Your task to perform on an android device: open app "WhatsApp Messenger" (install if not already installed), go to login, and select forgot password Image 0: 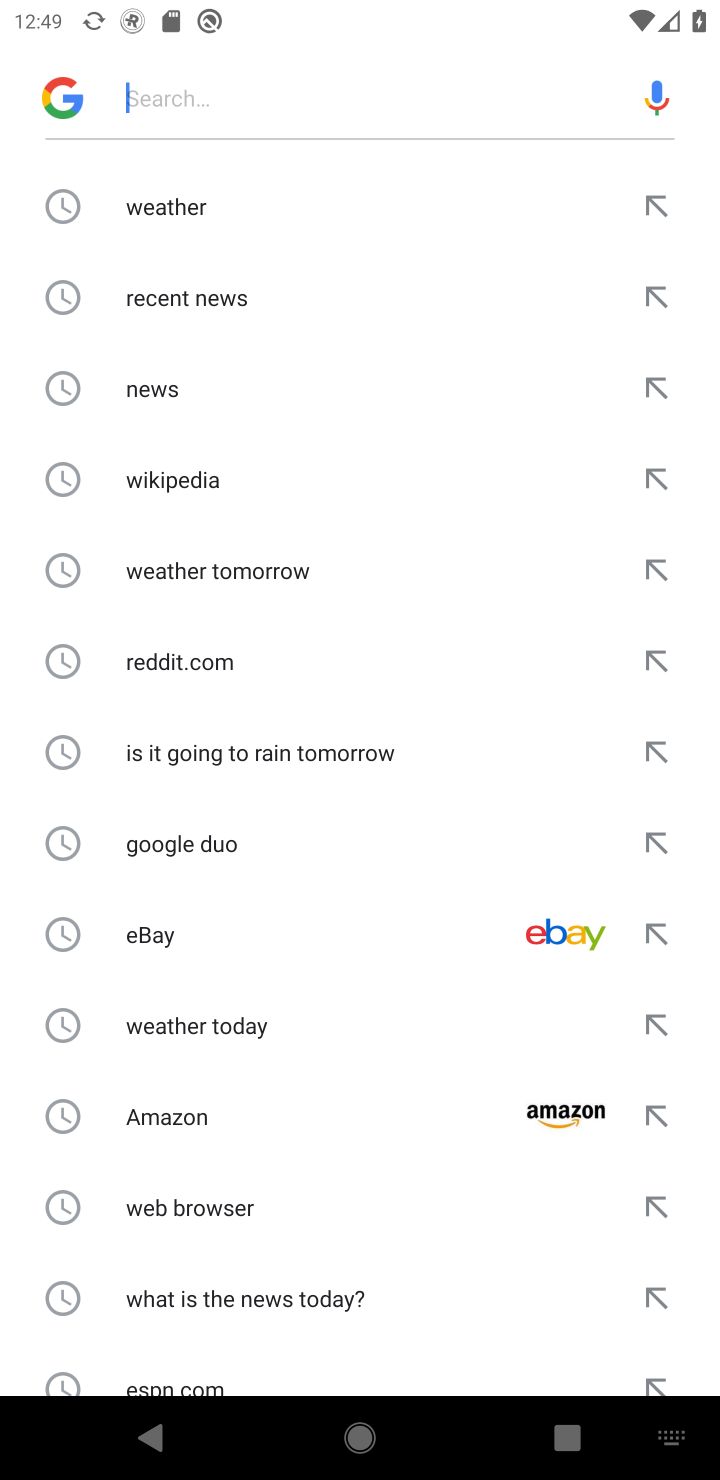
Step 0: press home button
Your task to perform on an android device: open app "WhatsApp Messenger" (install if not already installed), go to login, and select forgot password Image 1: 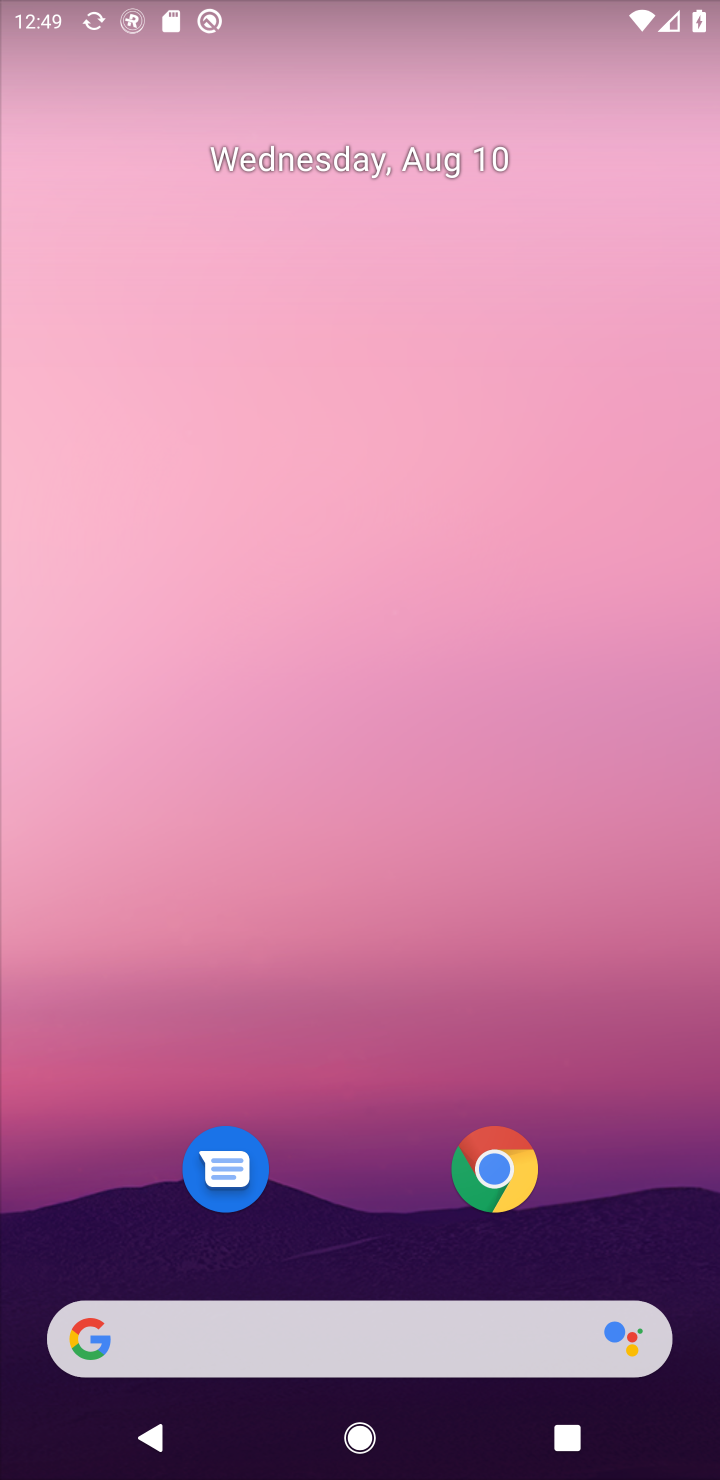
Step 1: drag from (608, 1200) to (543, 105)
Your task to perform on an android device: open app "WhatsApp Messenger" (install if not already installed), go to login, and select forgot password Image 2: 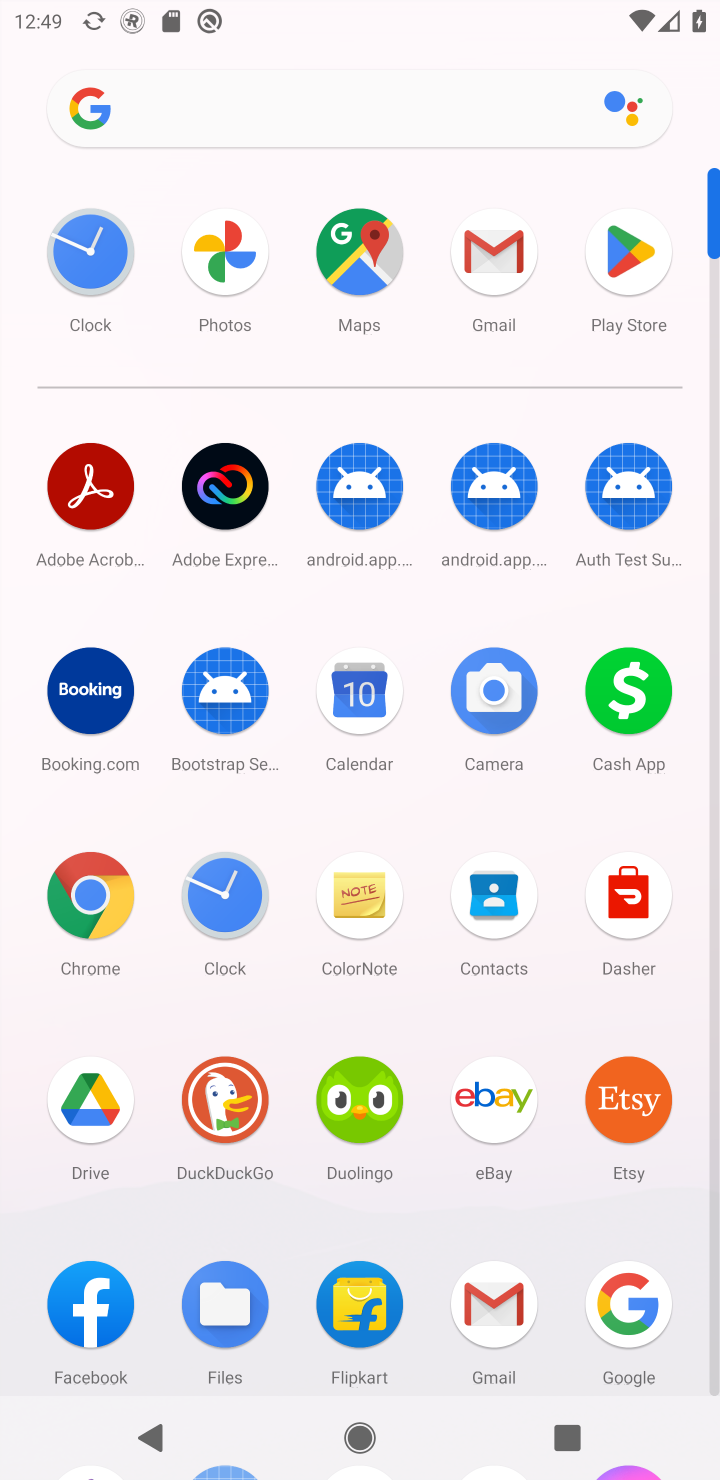
Step 2: click (621, 248)
Your task to perform on an android device: open app "WhatsApp Messenger" (install if not already installed), go to login, and select forgot password Image 3: 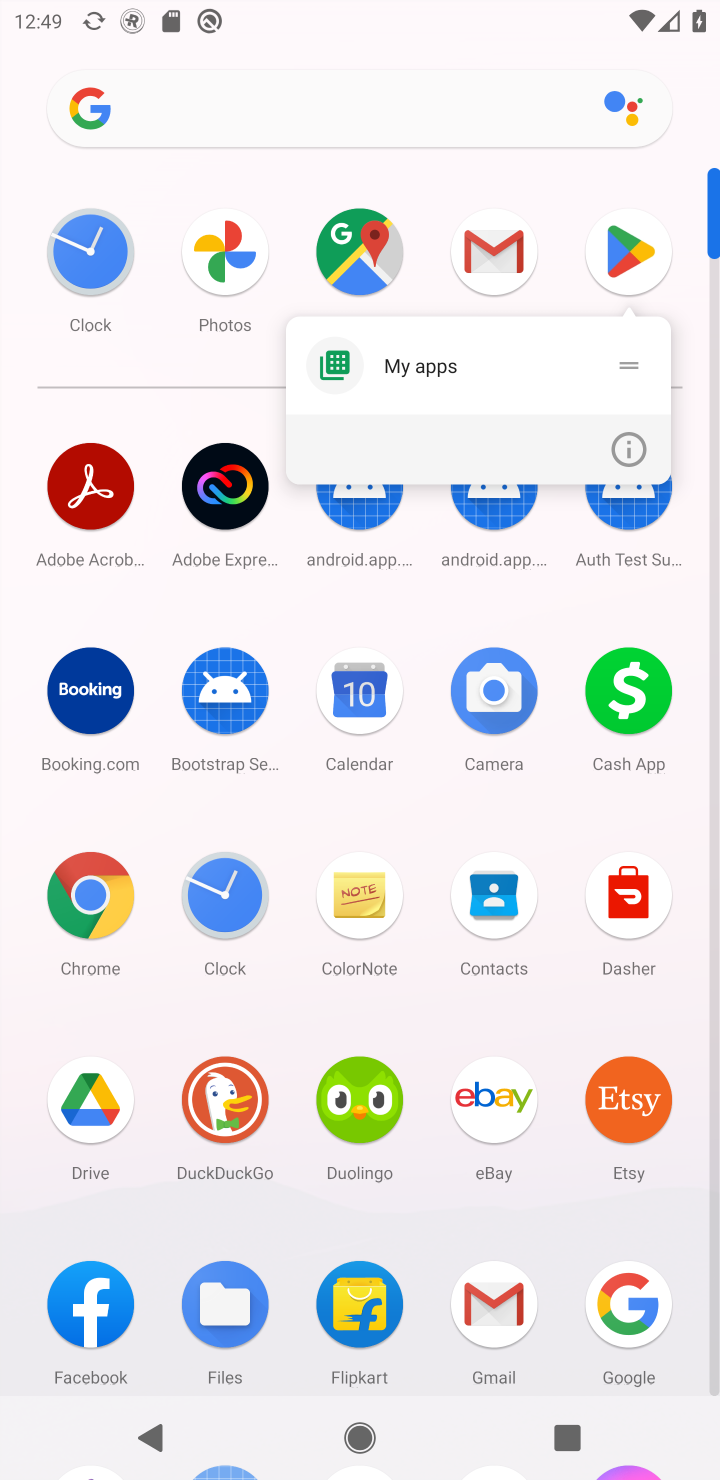
Step 3: click (625, 242)
Your task to perform on an android device: open app "WhatsApp Messenger" (install if not already installed), go to login, and select forgot password Image 4: 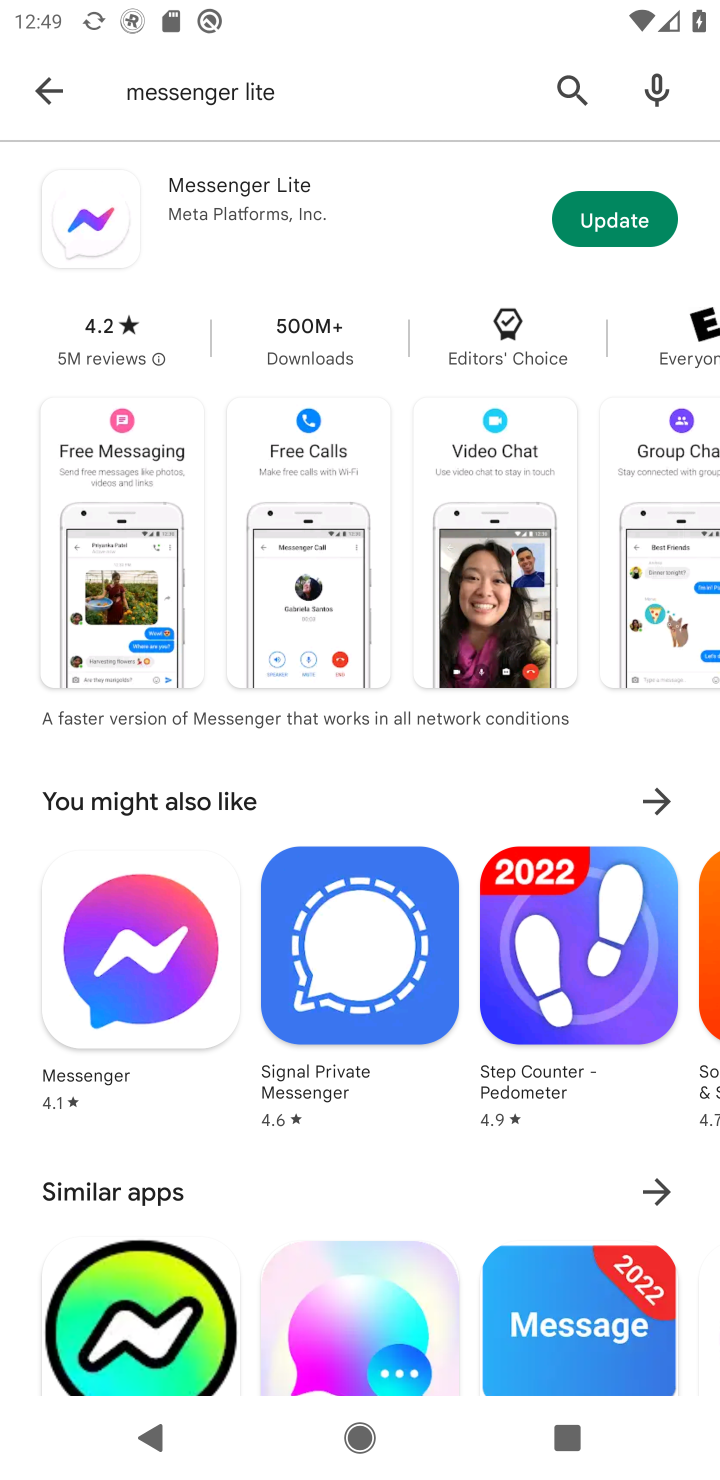
Step 4: click (557, 66)
Your task to perform on an android device: open app "WhatsApp Messenger" (install if not already installed), go to login, and select forgot password Image 5: 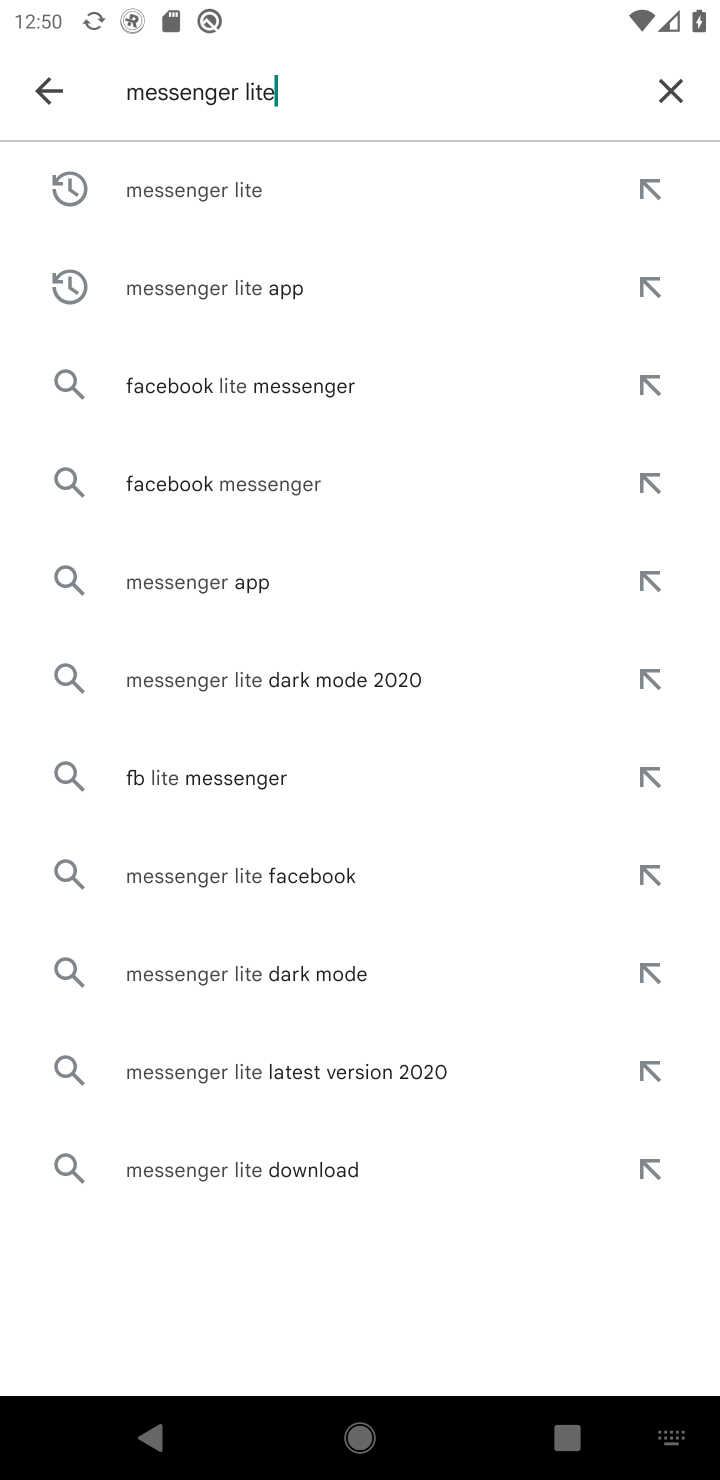
Step 5: click (656, 98)
Your task to perform on an android device: open app "WhatsApp Messenger" (install if not already installed), go to login, and select forgot password Image 6: 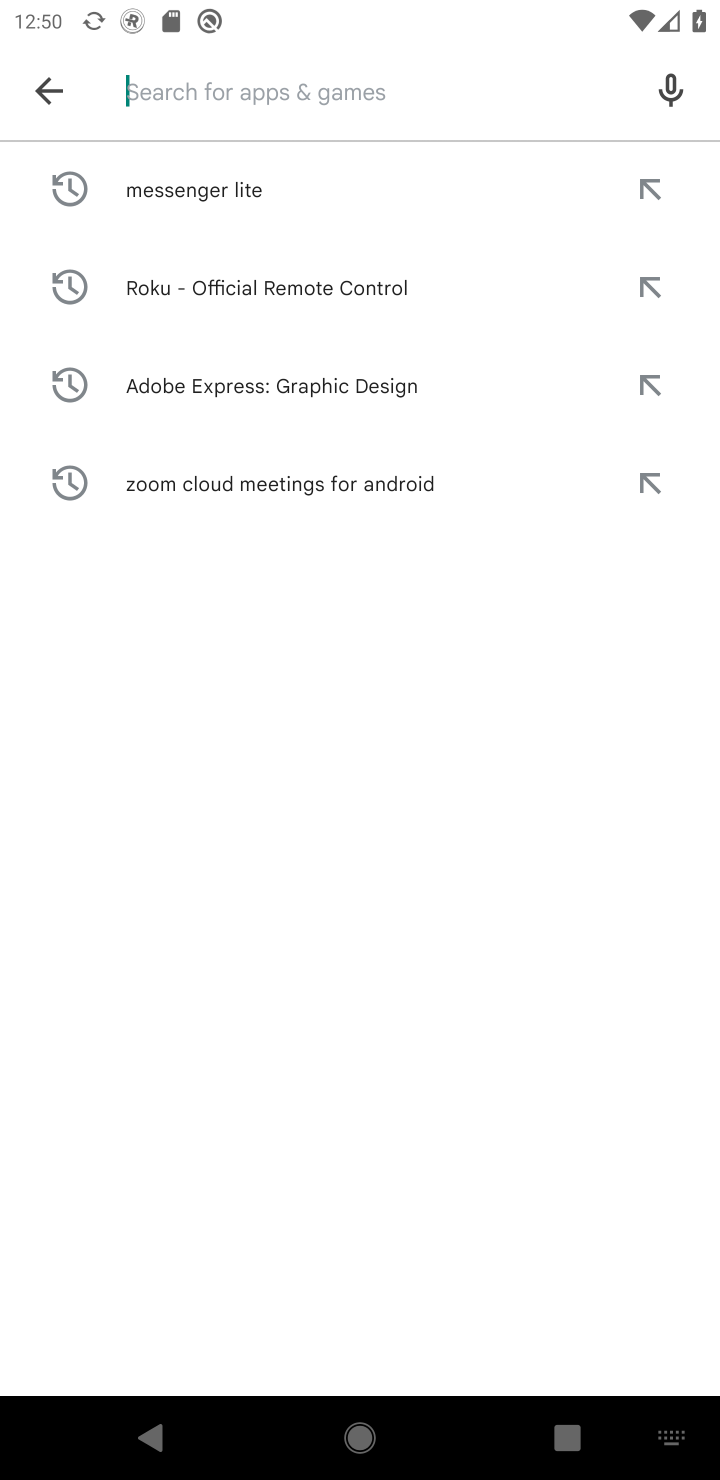
Step 6: press enter
Your task to perform on an android device: open app "WhatsApp Messenger" (install if not already installed), go to login, and select forgot password Image 7: 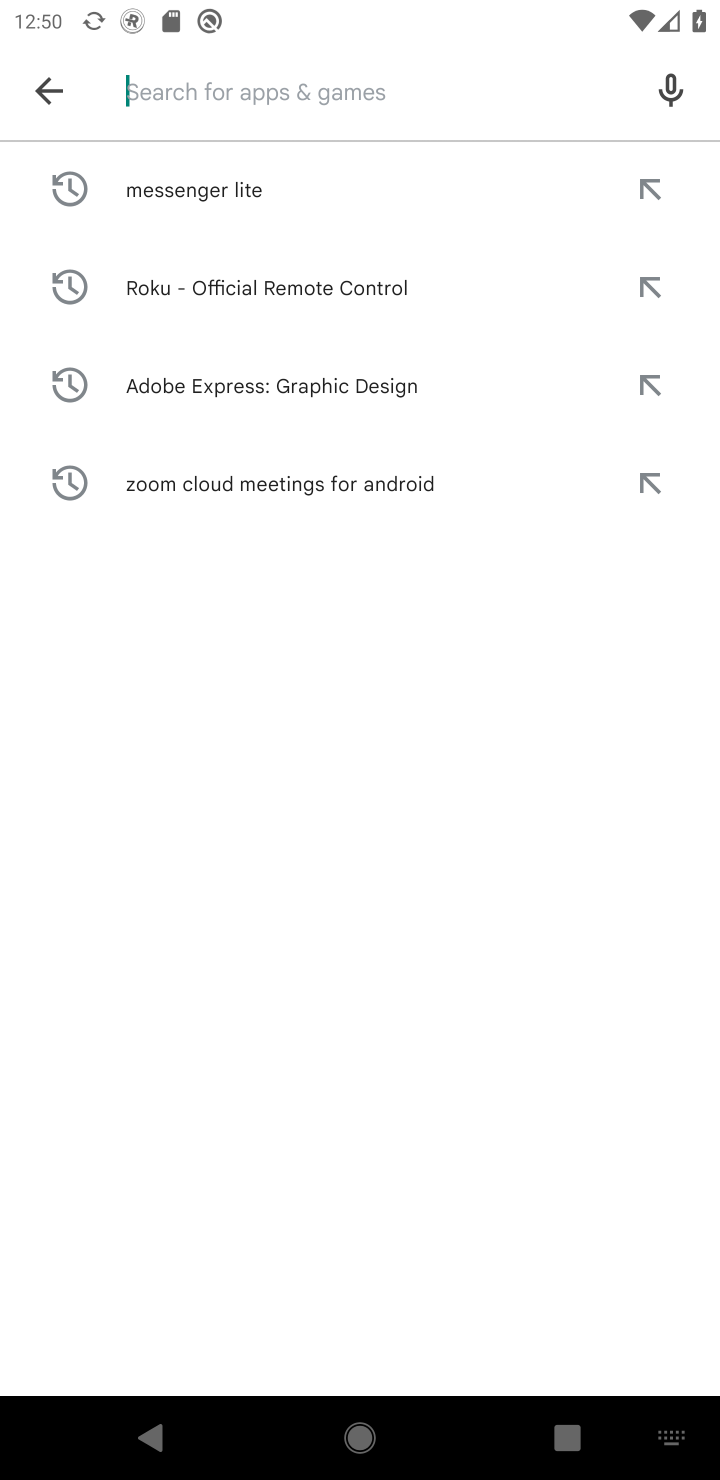
Step 7: type "WhatsApp Messenger"
Your task to perform on an android device: open app "WhatsApp Messenger" (install if not already installed), go to login, and select forgot password Image 8: 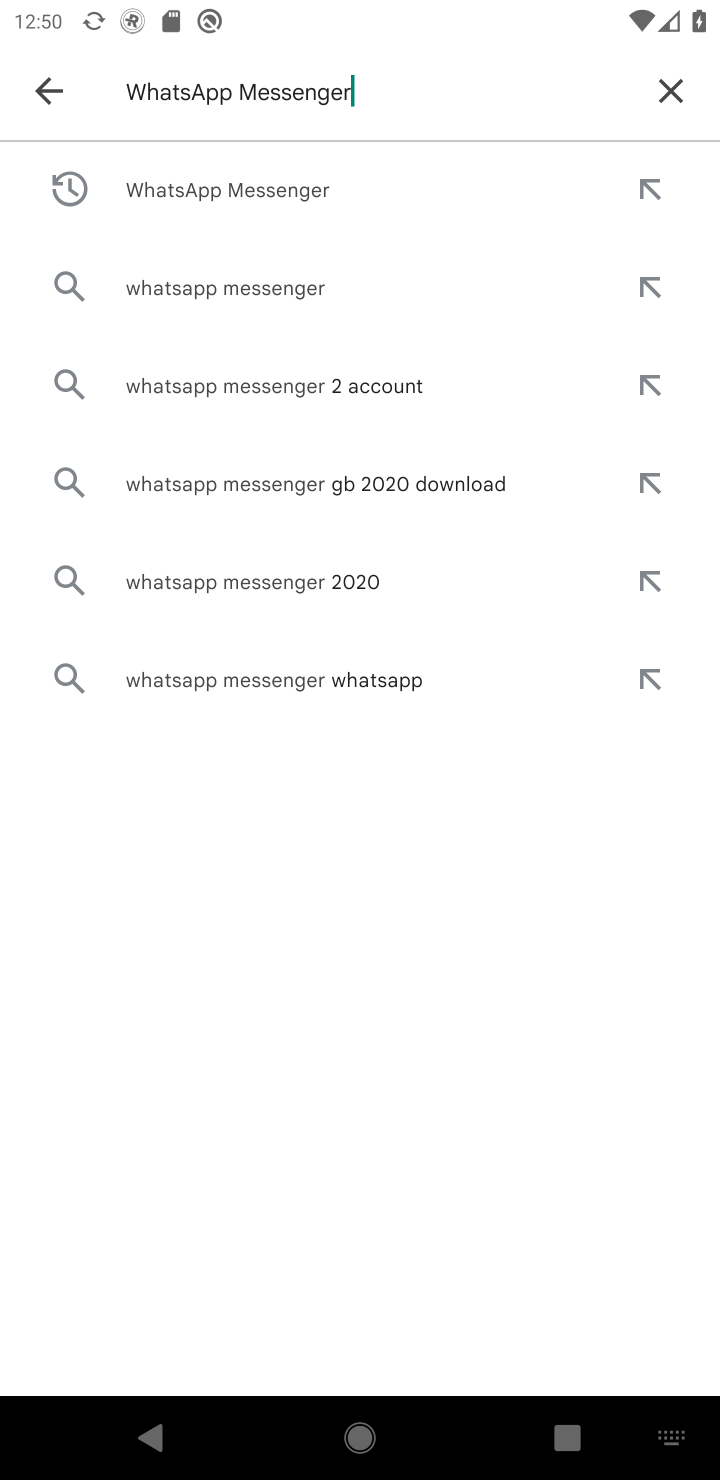
Step 8: click (325, 183)
Your task to perform on an android device: open app "WhatsApp Messenger" (install if not already installed), go to login, and select forgot password Image 9: 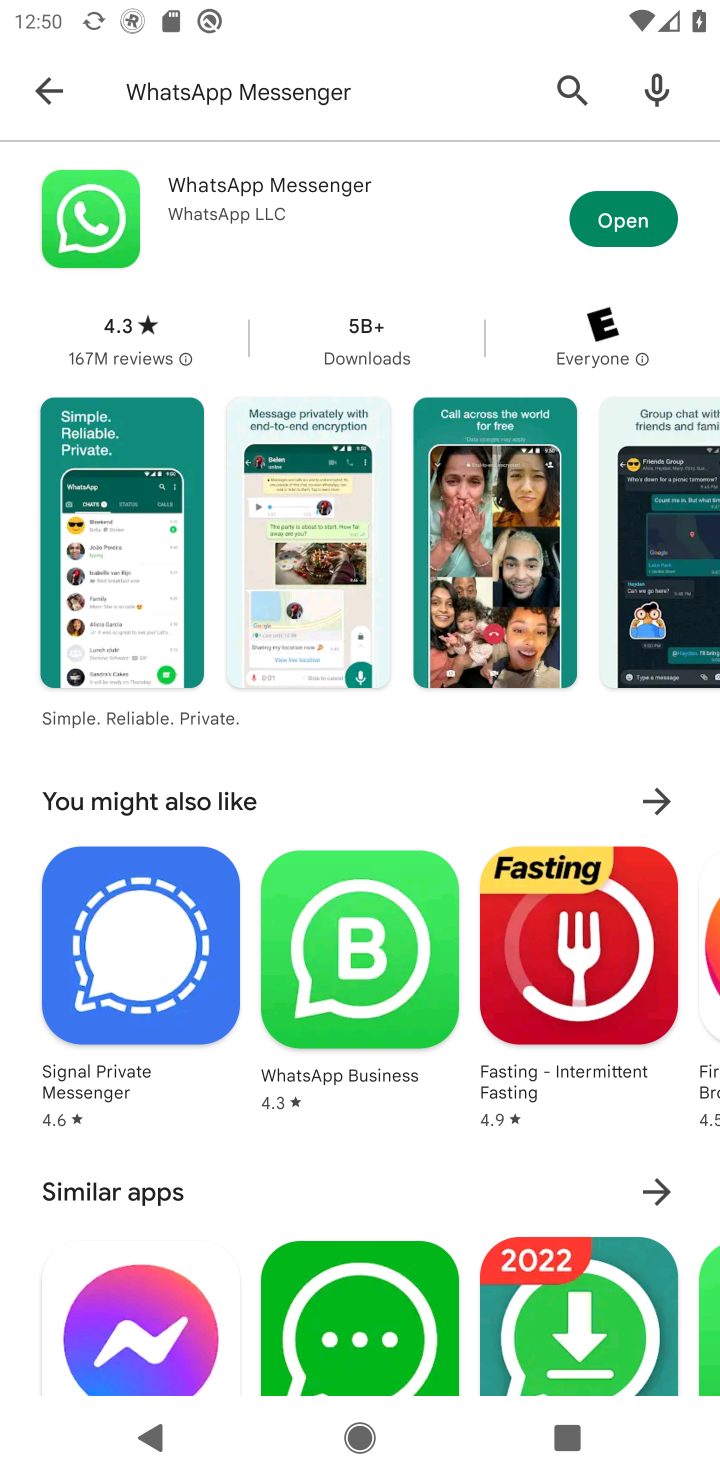
Step 9: click (604, 222)
Your task to perform on an android device: open app "WhatsApp Messenger" (install if not already installed), go to login, and select forgot password Image 10: 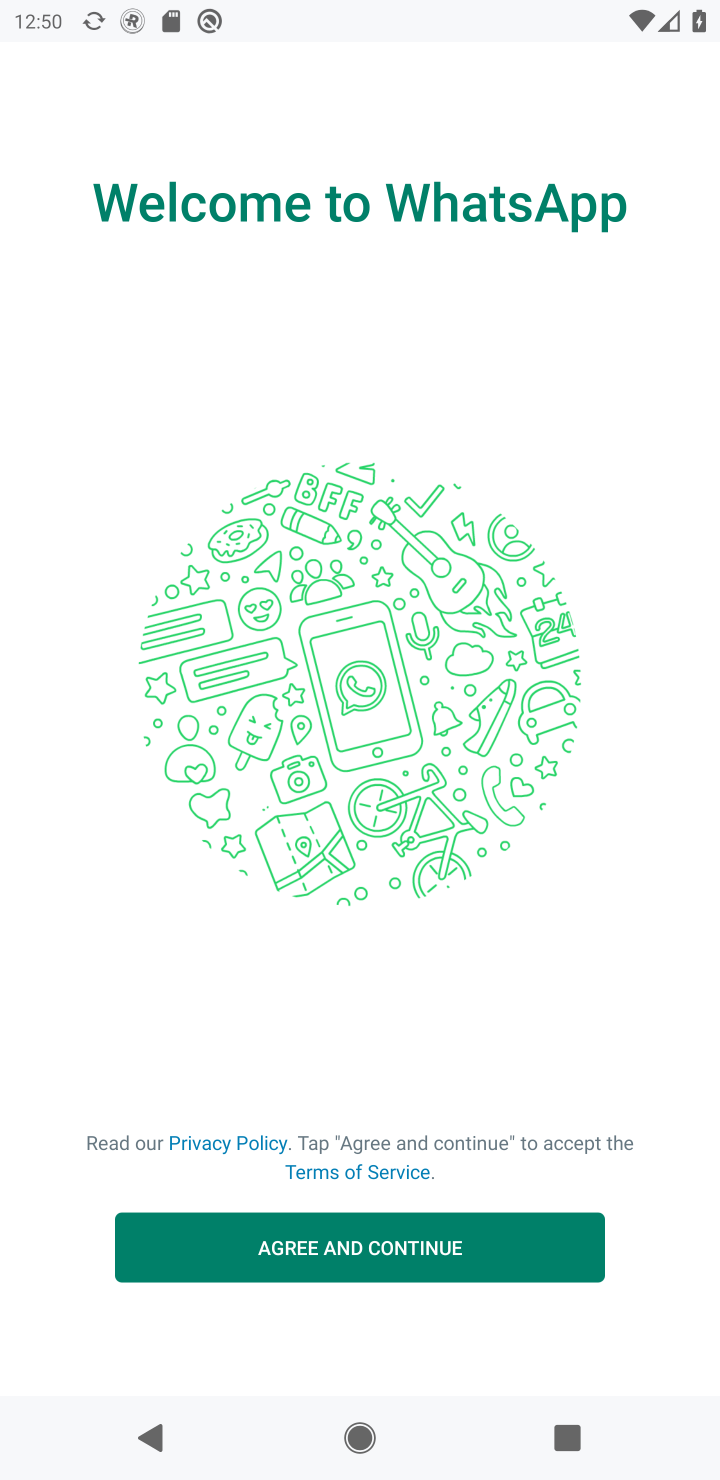
Step 10: task complete